Your task to perform on an android device: Search for pizza restaurants on Maps Image 0: 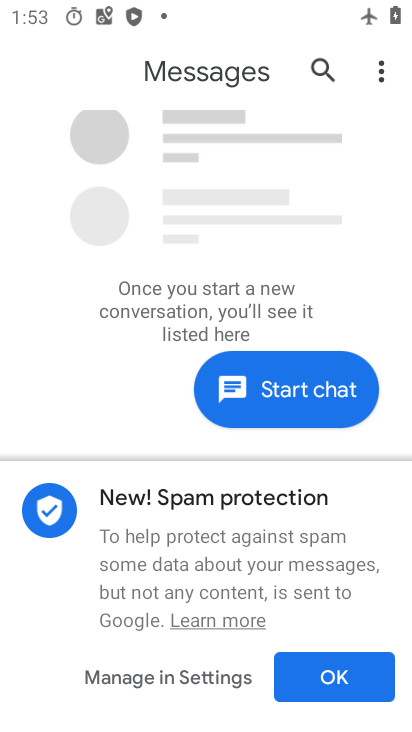
Step 0: press home button
Your task to perform on an android device: Search for pizza restaurants on Maps Image 1: 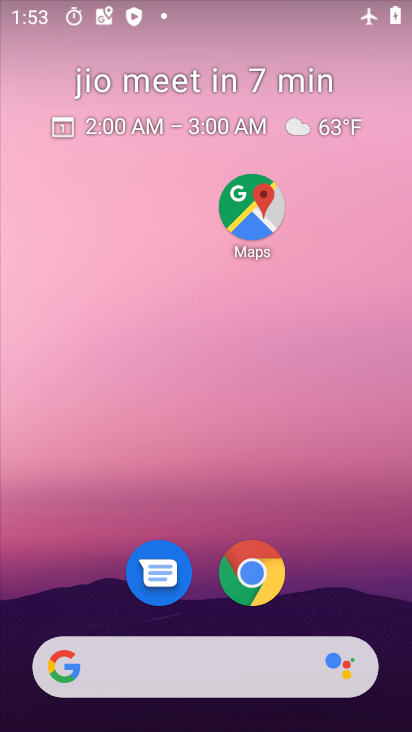
Step 1: drag from (172, 511) to (167, 60)
Your task to perform on an android device: Search for pizza restaurants on Maps Image 2: 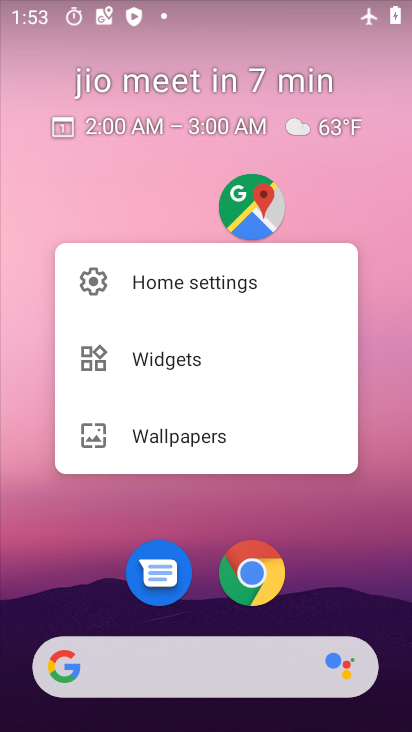
Step 2: click (215, 505)
Your task to perform on an android device: Search for pizza restaurants on Maps Image 3: 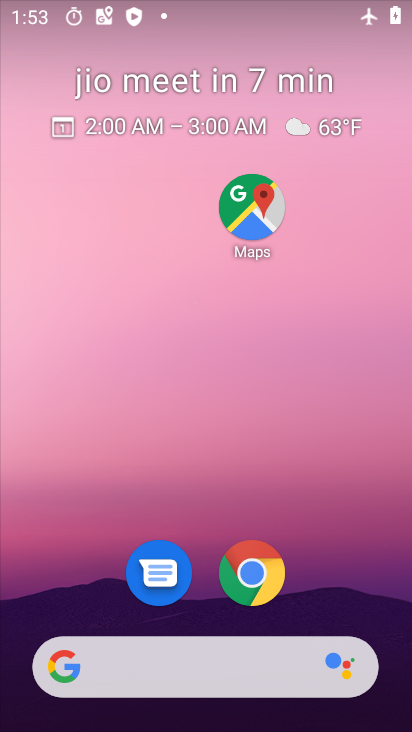
Step 3: drag from (205, 482) to (200, 0)
Your task to perform on an android device: Search for pizza restaurants on Maps Image 4: 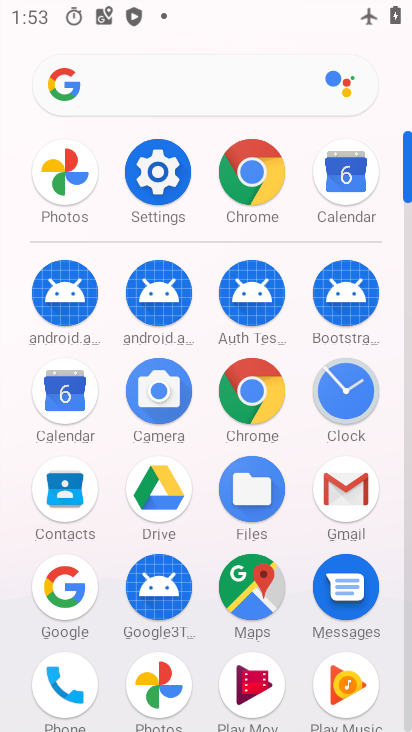
Step 4: click (263, 595)
Your task to perform on an android device: Search for pizza restaurants on Maps Image 5: 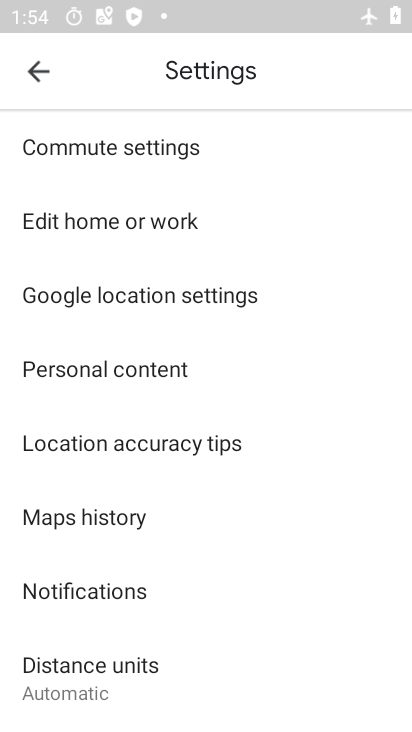
Step 5: press back button
Your task to perform on an android device: Search for pizza restaurants on Maps Image 6: 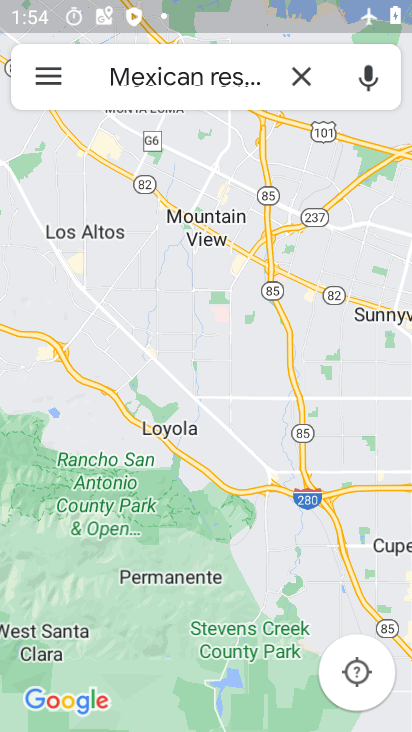
Step 6: click (296, 86)
Your task to perform on an android device: Search for pizza restaurants on Maps Image 7: 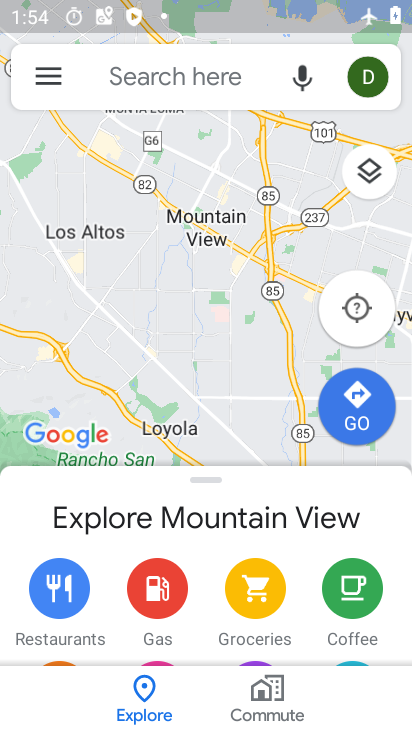
Step 7: click (216, 83)
Your task to perform on an android device: Search for pizza restaurants on Maps Image 8: 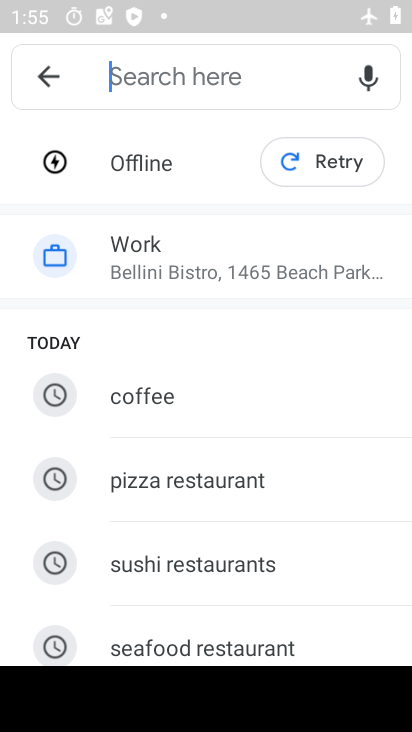
Step 8: click (224, 488)
Your task to perform on an android device: Search for pizza restaurants on Maps Image 9: 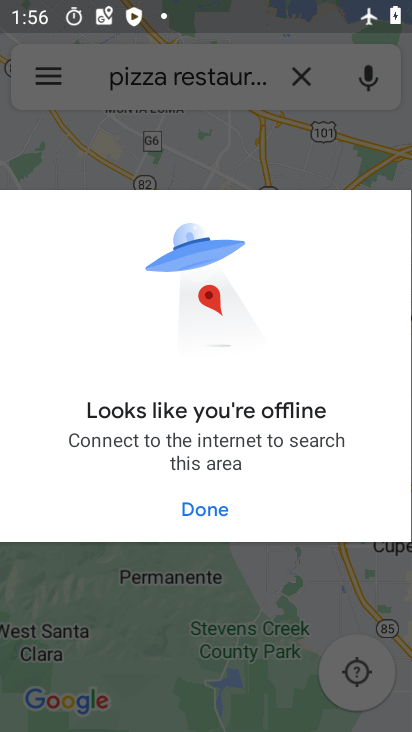
Step 9: task complete